Your task to perform on an android device: Search for top rated seafood restaurants on Google Maps Image 0: 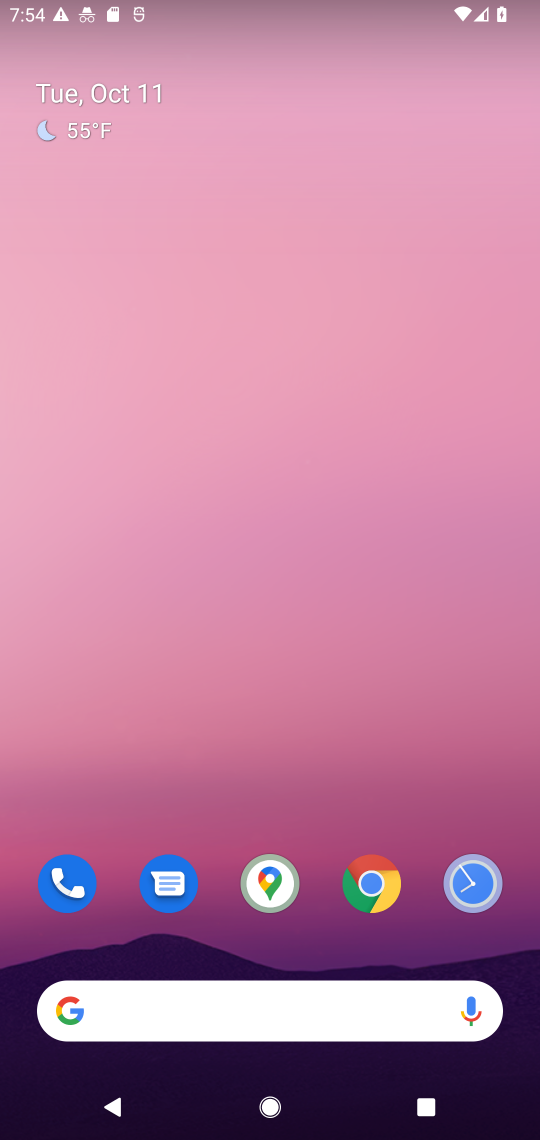
Step 0: drag from (311, 888) to (237, 15)
Your task to perform on an android device: Search for top rated seafood restaurants on Google Maps Image 1: 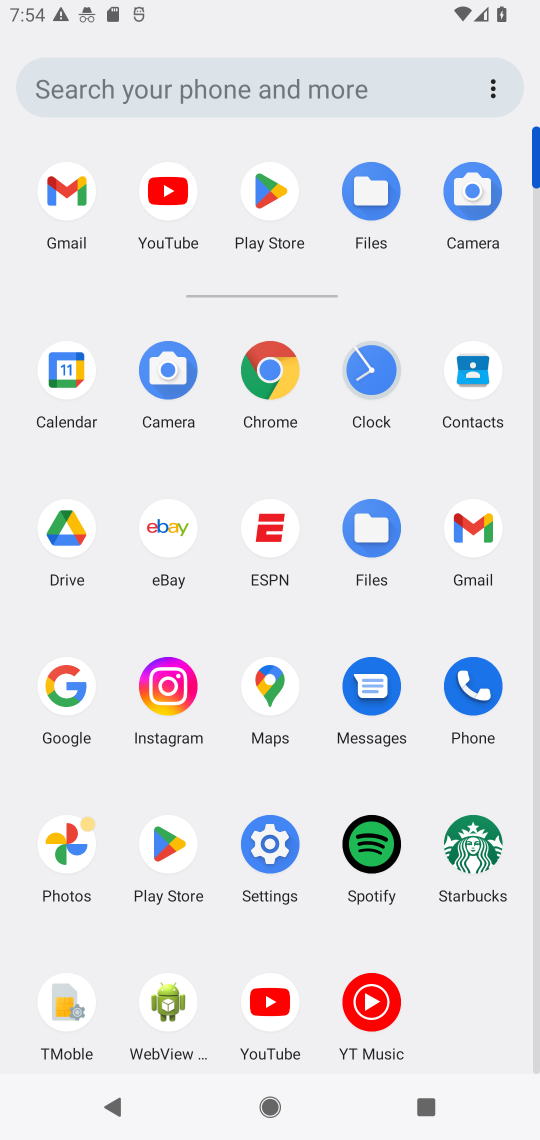
Step 1: click (260, 691)
Your task to perform on an android device: Search for top rated seafood restaurants on Google Maps Image 2: 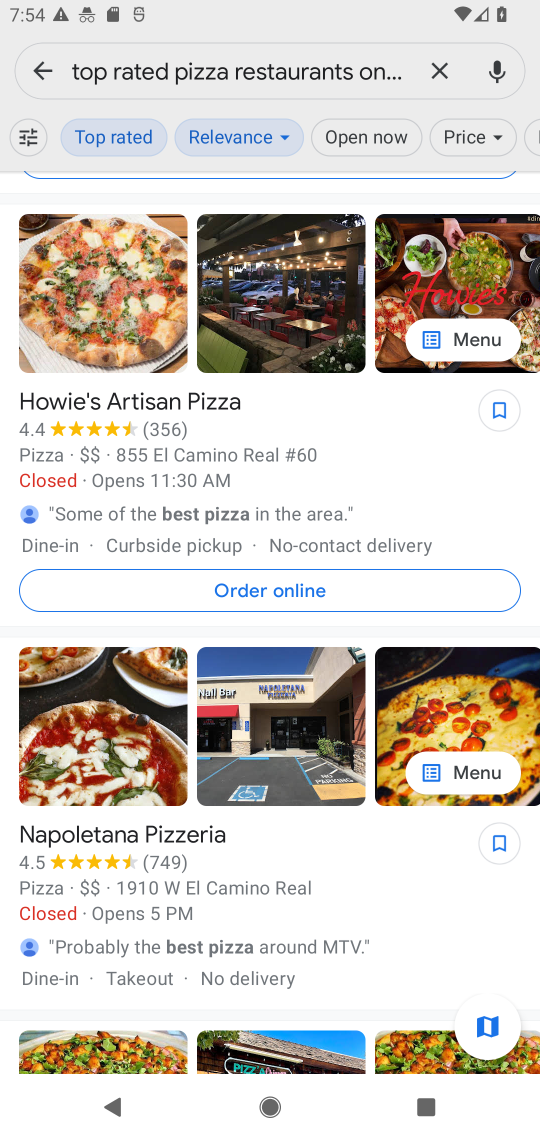
Step 2: click (212, 60)
Your task to perform on an android device: Search for top rated seafood restaurants on Google Maps Image 3: 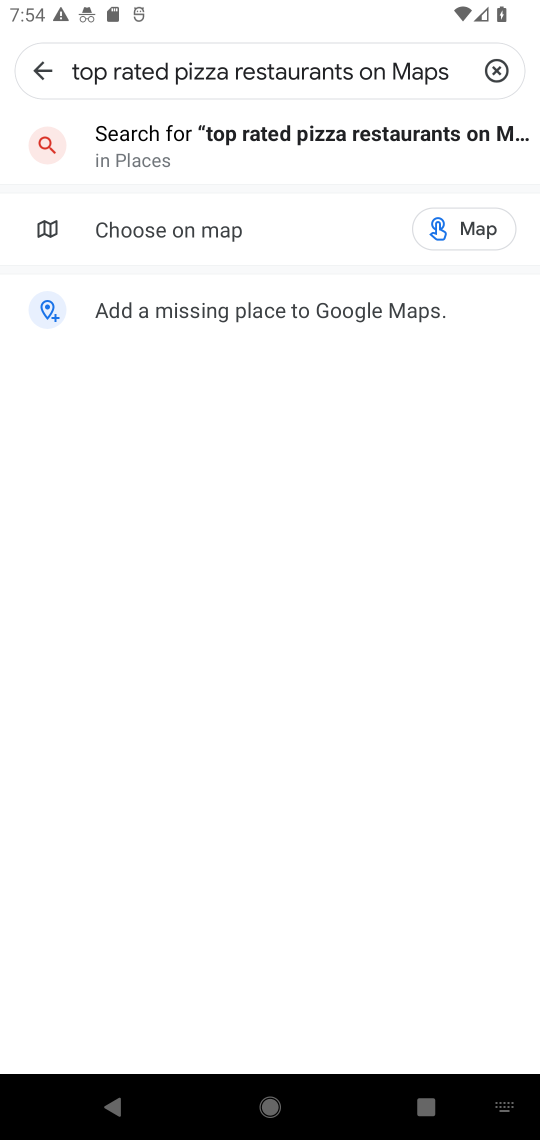
Step 3: click (480, 72)
Your task to perform on an android device: Search for top rated seafood restaurants on Google Maps Image 4: 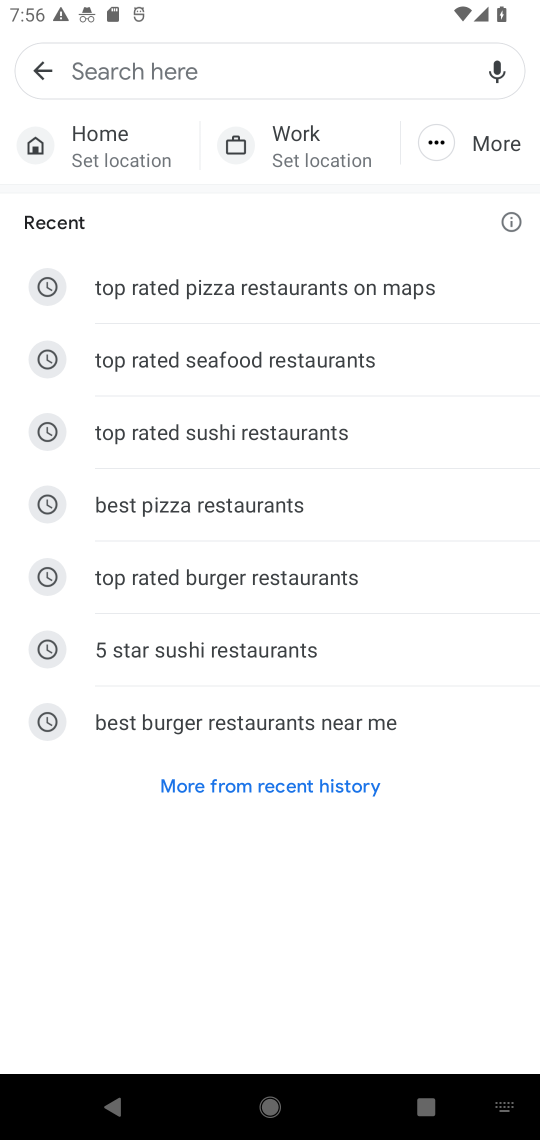
Step 4: type "top rated seafood restaurants on google Maps"
Your task to perform on an android device: Search for top rated seafood restaurants on Google Maps Image 5: 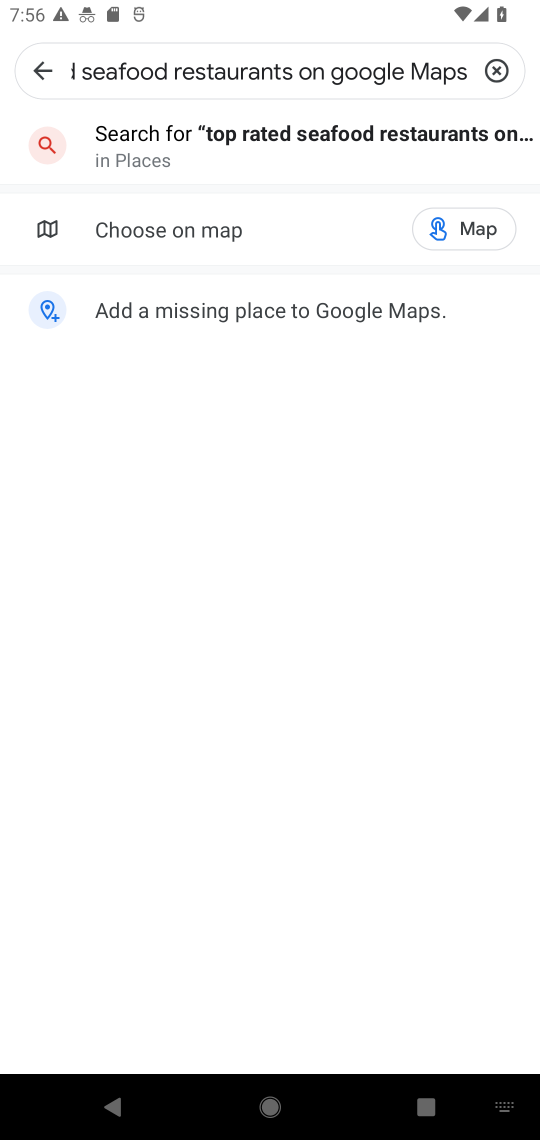
Step 5: press enter
Your task to perform on an android device: Search for top rated seafood restaurants on Google Maps Image 6: 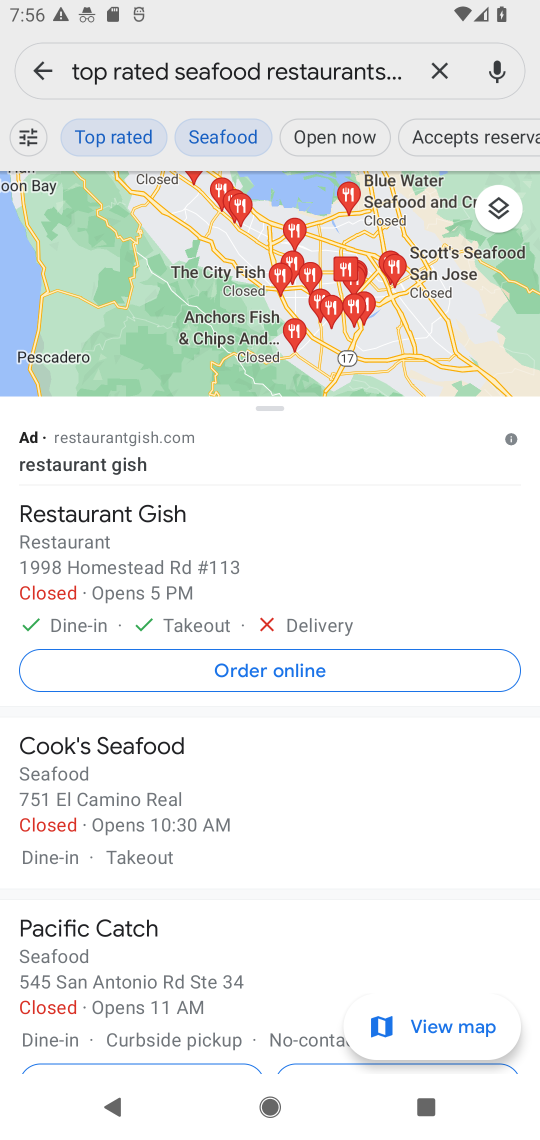
Step 6: press enter
Your task to perform on an android device: Search for top rated seafood restaurants on Google Maps Image 7: 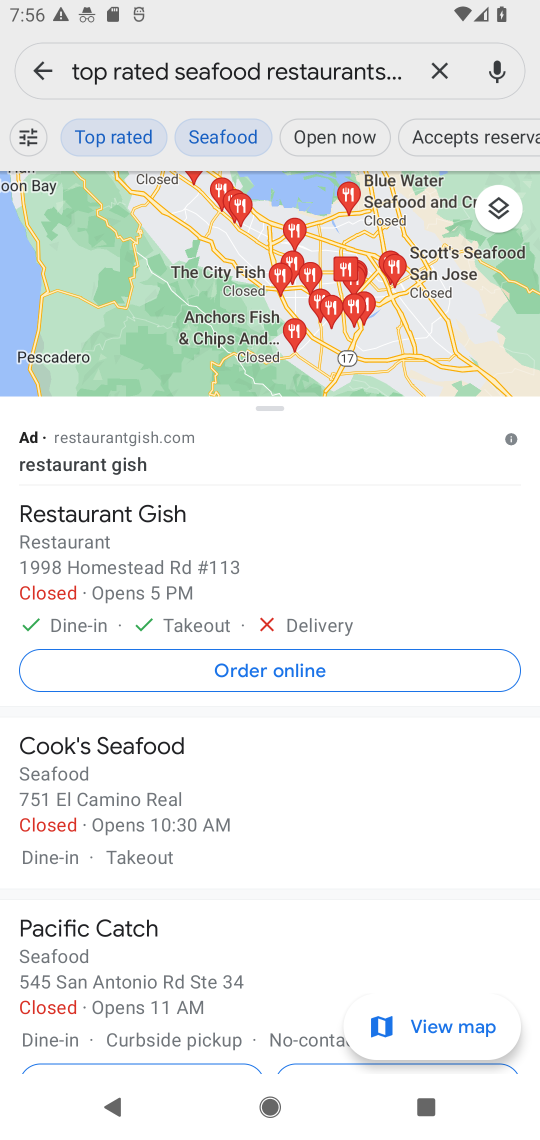
Step 7: task complete